Your task to perform on an android device: toggle show notifications on the lock screen Image 0: 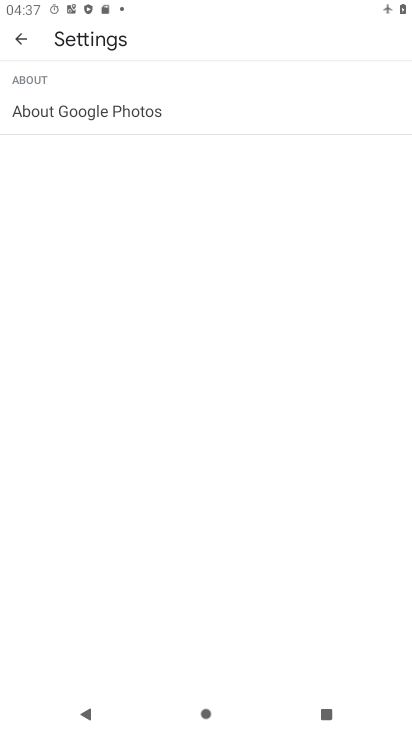
Step 0: press home button
Your task to perform on an android device: toggle show notifications on the lock screen Image 1: 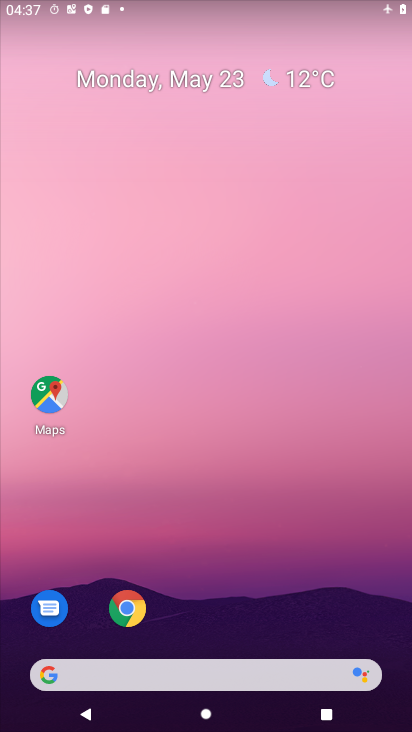
Step 1: drag from (327, 576) to (279, 151)
Your task to perform on an android device: toggle show notifications on the lock screen Image 2: 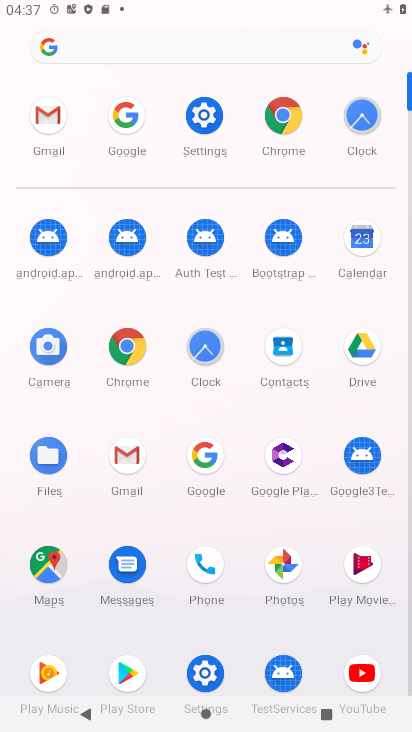
Step 2: click (189, 134)
Your task to perform on an android device: toggle show notifications on the lock screen Image 3: 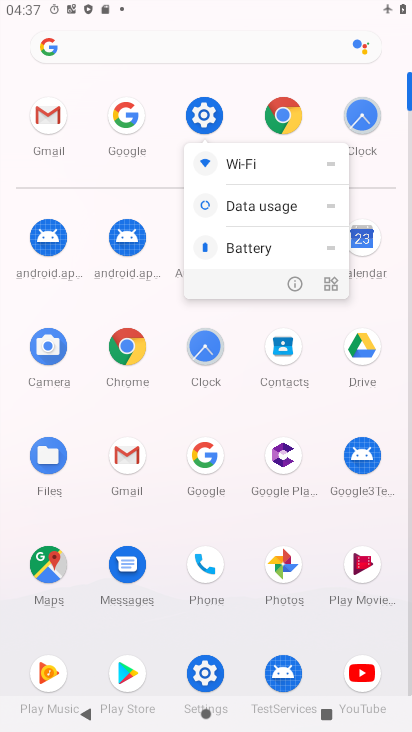
Step 3: click (209, 123)
Your task to perform on an android device: toggle show notifications on the lock screen Image 4: 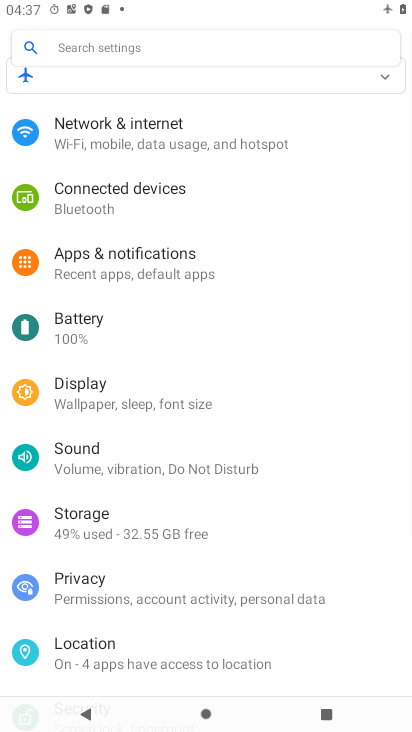
Step 4: click (207, 265)
Your task to perform on an android device: toggle show notifications on the lock screen Image 5: 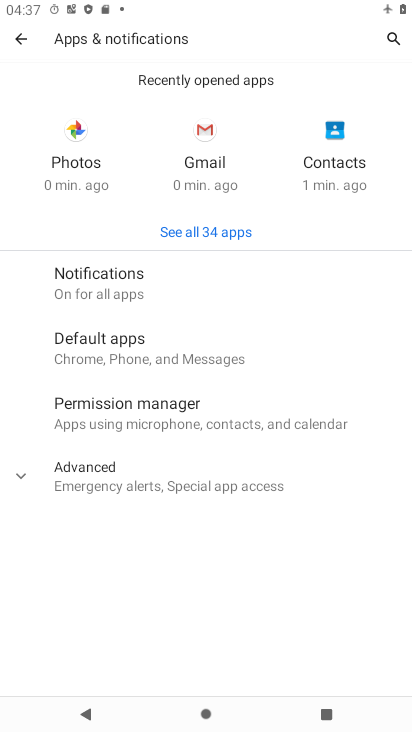
Step 5: click (204, 291)
Your task to perform on an android device: toggle show notifications on the lock screen Image 6: 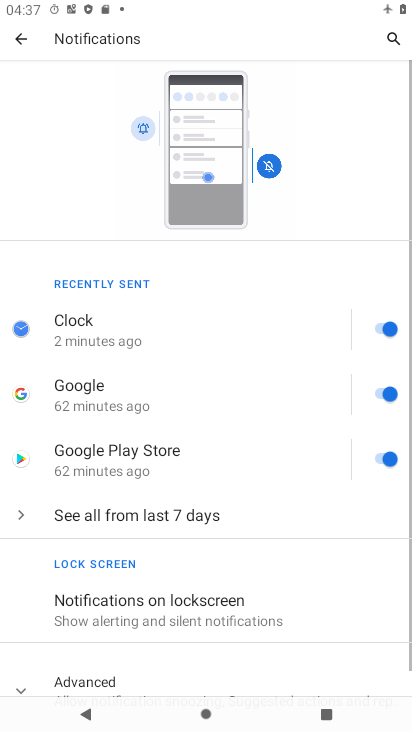
Step 6: click (230, 599)
Your task to perform on an android device: toggle show notifications on the lock screen Image 7: 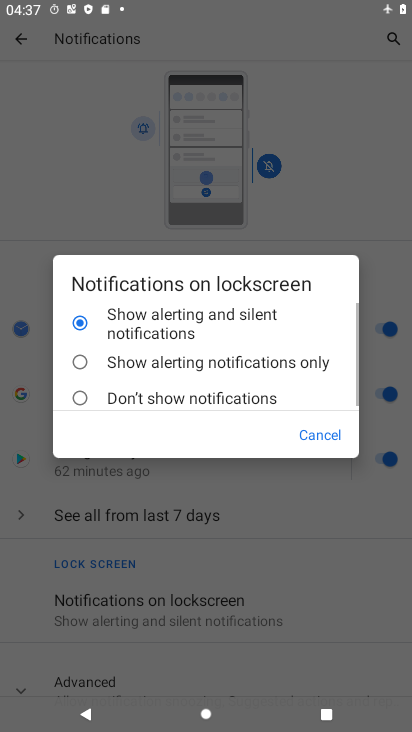
Step 7: click (190, 411)
Your task to perform on an android device: toggle show notifications on the lock screen Image 8: 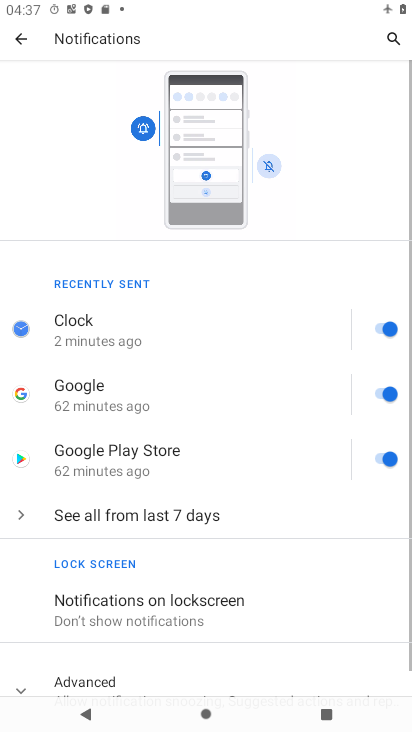
Step 8: click (201, 396)
Your task to perform on an android device: toggle show notifications on the lock screen Image 9: 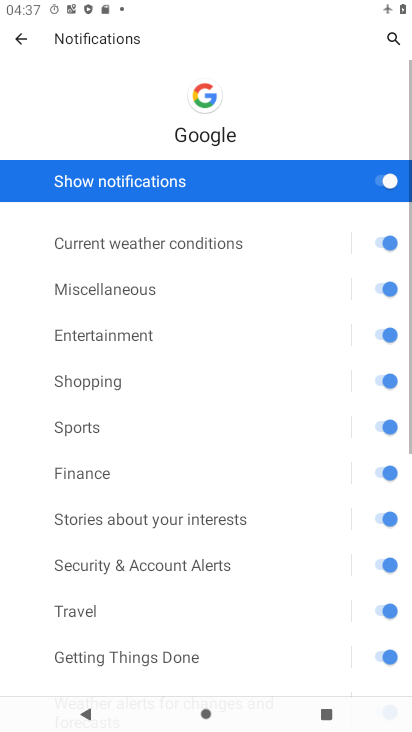
Step 9: task complete